Your task to perform on an android device: turn off data saver in the chrome app Image 0: 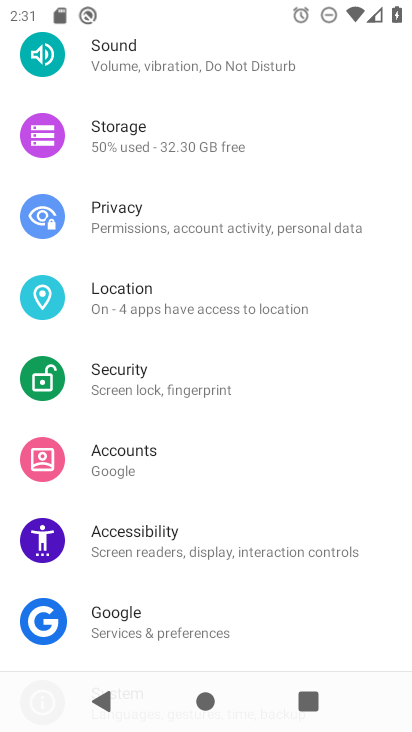
Step 0: press home button
Your task to perform on an android device: turn off data saver in the chrome app Image 1: 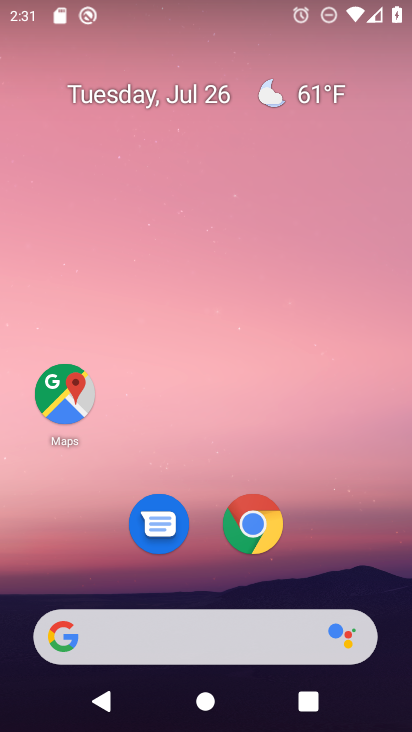
Step 1: click (251, 522)
Your task to perform on an android device: turn off data saver in the chrome app Image 2: 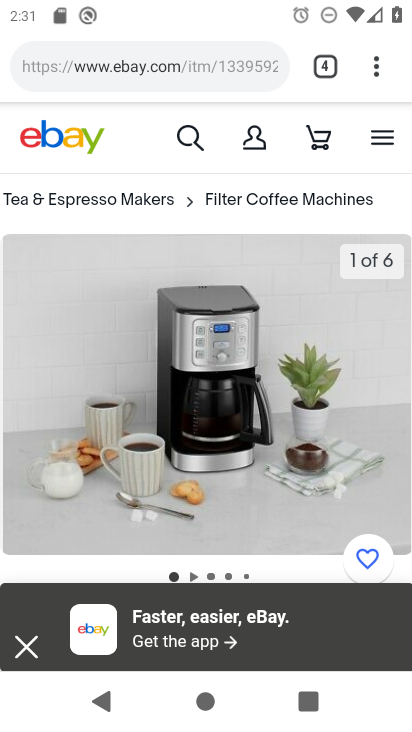
Step 2: drag from (382, 68) to (159, 523)
Your task to perform on an android device: turn off data saver in the chrome app Image 3: 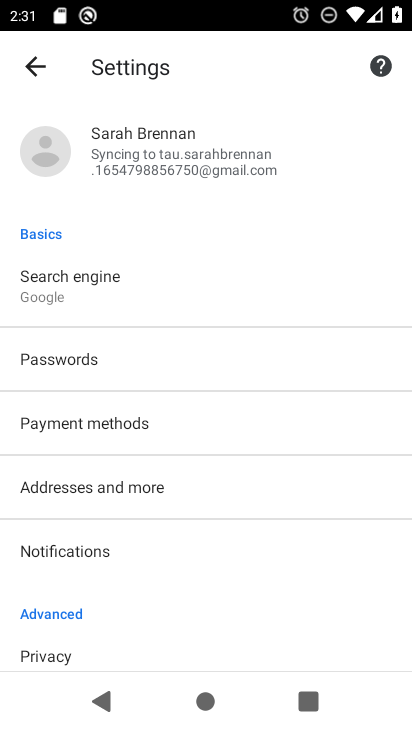
Step 3: drag from (110, 607) to (320, 139)
Your task to perform on an android device: turn off data saver in the chrome app Image 4: 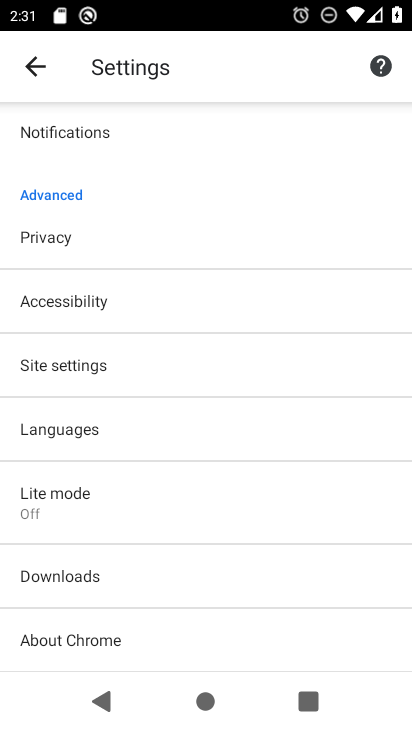
Step 4: click (102, 492)
Your task to perform on an android device: turn off data saver in the chrome app Image 5: 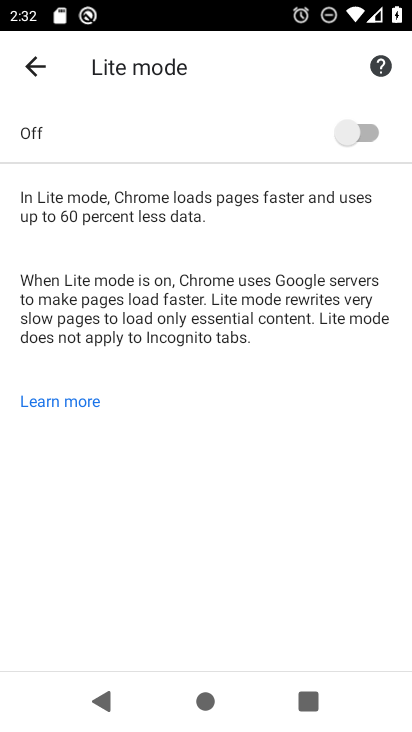
Step 5: task complete